Your task to perform on an android device: Do I have any events this weekend? Image 0: 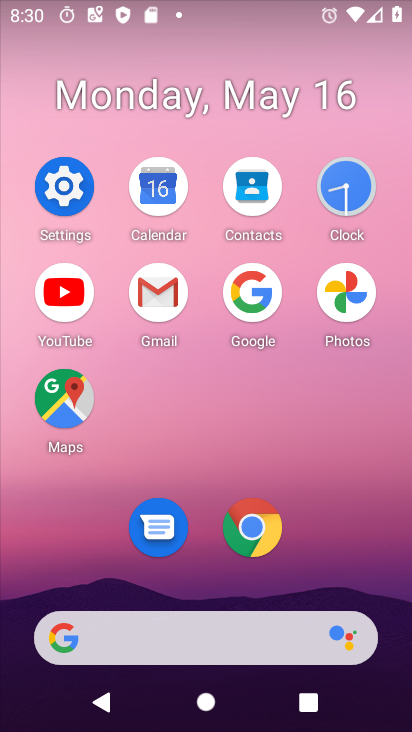
Step 0: click (152, 182)
Your task to perform on an android device: Do I have any events this weekend? Image 1: 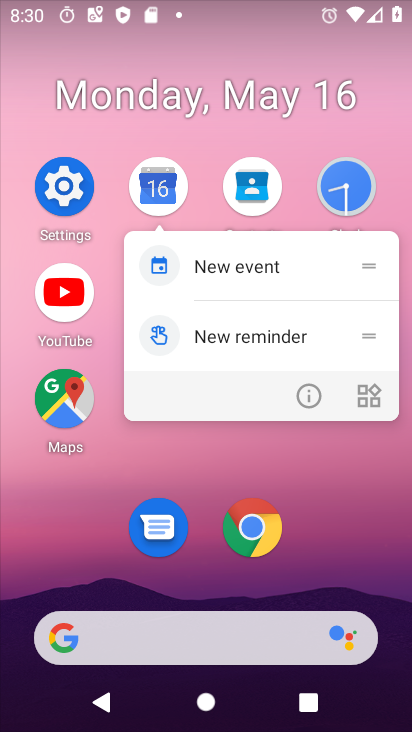
Step 1: click (173, 199)
Your task to perform on an android device: Do I have any events this weekend? Image 2: 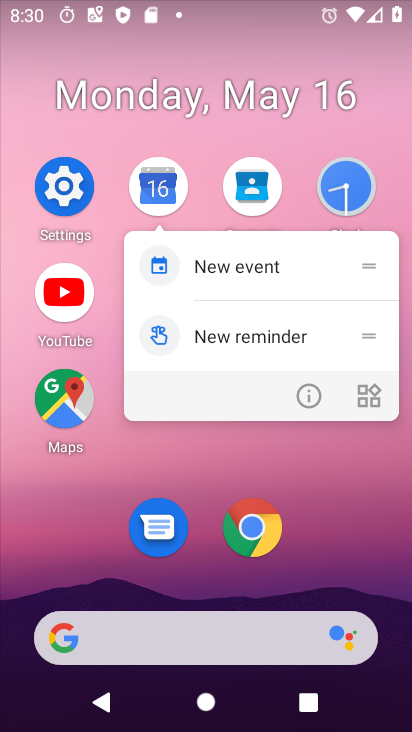
Step 2: click (139, 181)
Your task to perform on an android device: Do I have any events this weekend? Image 3: 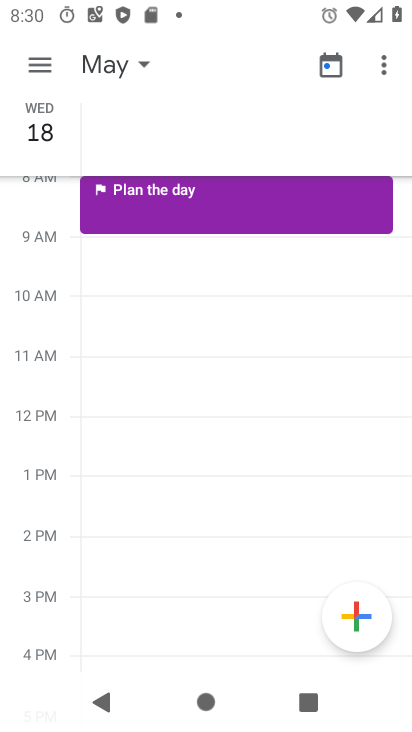
Step 3: click (52, 69)
Your task to perform on an android device: Do I have any events this weekend? Image 4: 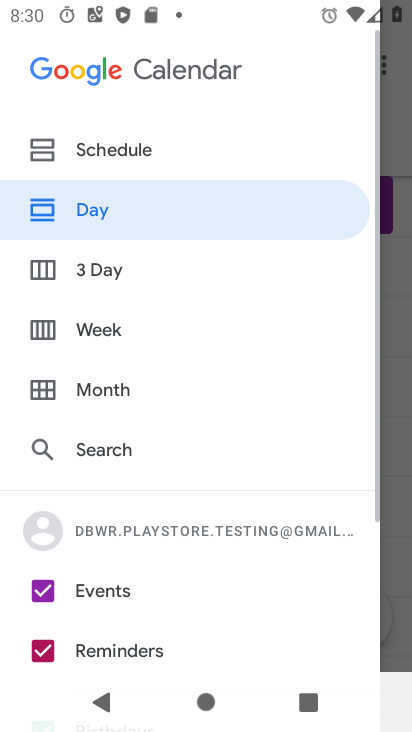
Step 4: click (112, 323)
Your task to perform on an android device: Do I have any events this weekend? Image 5: 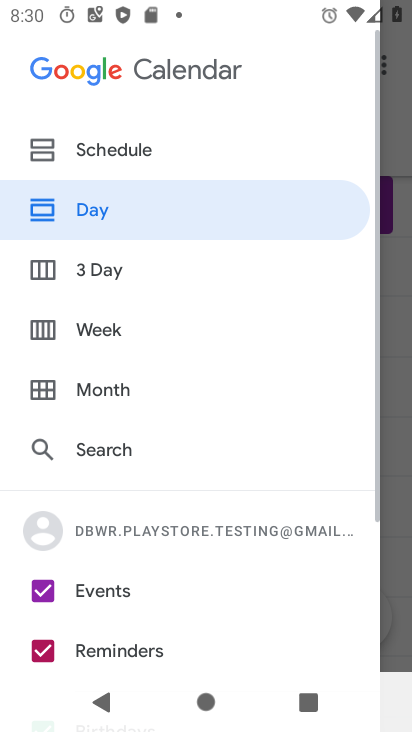
Step 5: click (103, 327)
Your task to perform on an android device: Do I have any events this weekend? Image 6: 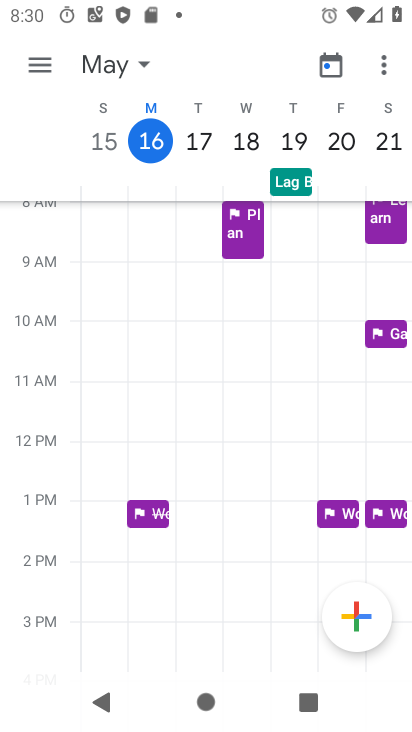
Step 6: click (371, 143)
Your task to perform on an android device: Do I have any events this weekend? Image 7: 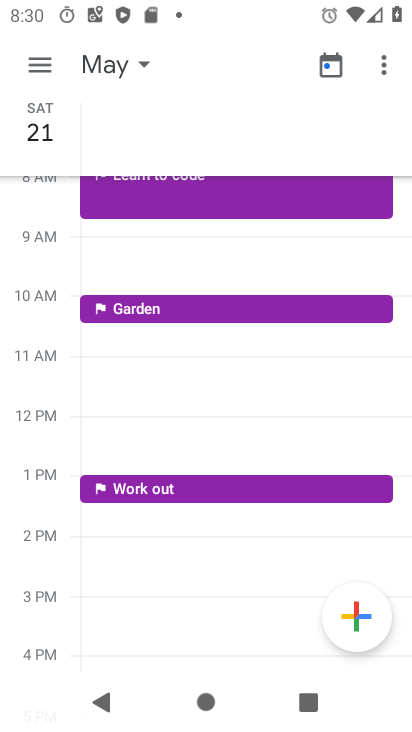
Step 7: task complete